Your task to perform on an android device: Go to sound settings Image 0: 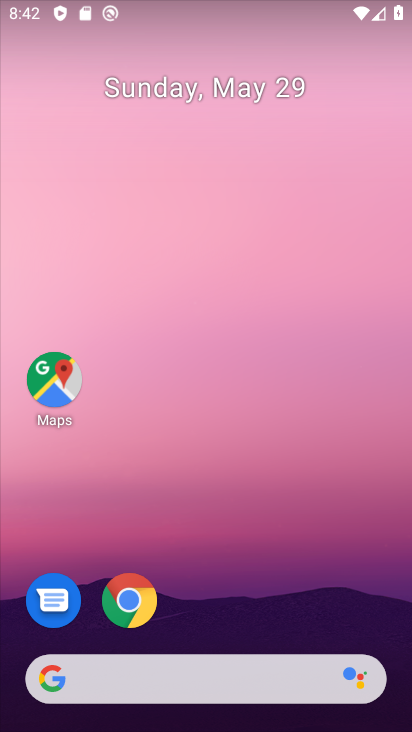
Step 0: drag from (233, 725) to (222, 1)
Your task to perform on an android device: Go to sound settings Image 1: 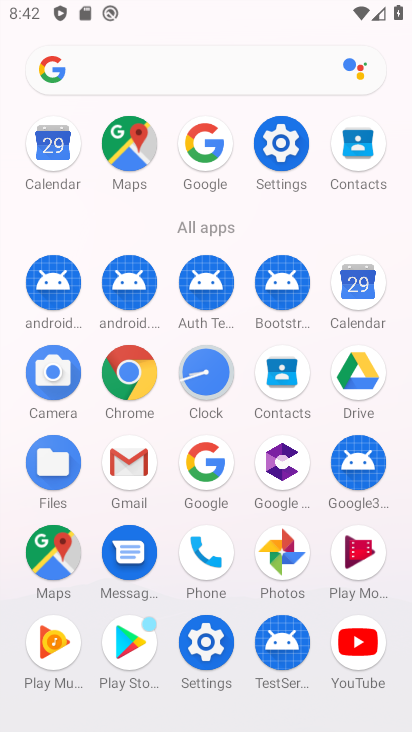
Step 1: click (282, 148)
Your task to perform on an android device: Go to sound settings Image 2: 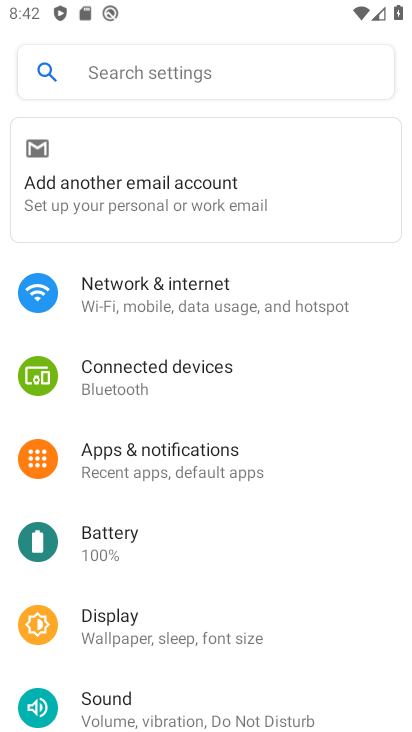
Step 2: drag from (117, 672) to (124, 388)
Your task to perform on an android device: Go to sound settings Image 3: 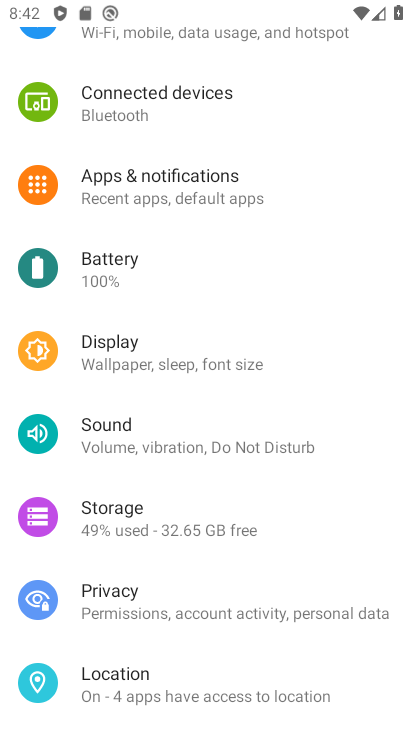
Step 3: click (123, 425)
Your task to perform on an android device: Go to sound settings Image 4: 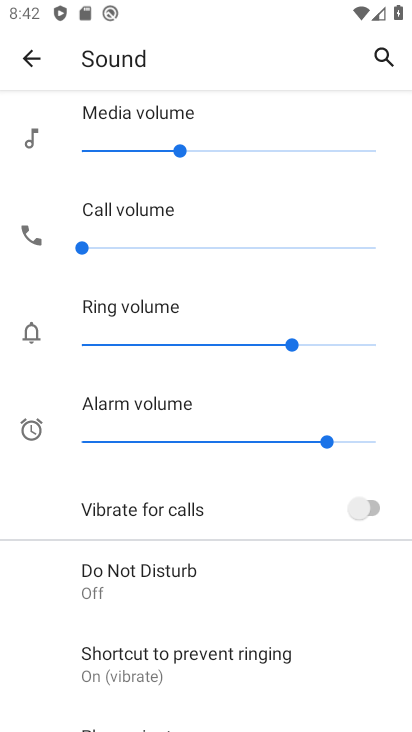
Step 4: task complete